Your task to perform on an android device: set default search engine in the chrome app Image 0: 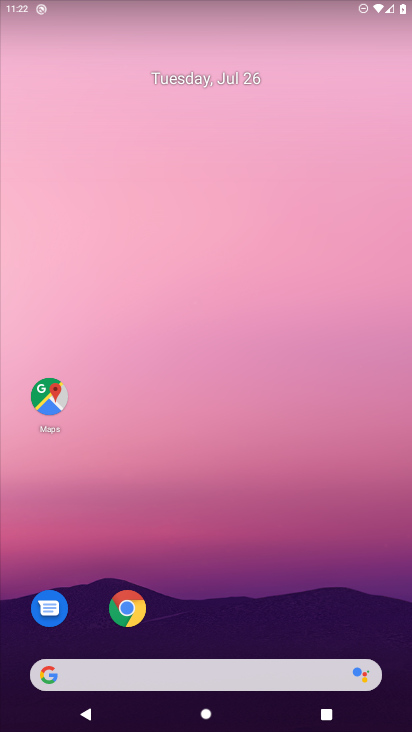
Step 0: click (216, 319)
Your task to perform on an android device: set default search engine in the chrome app Image 1: 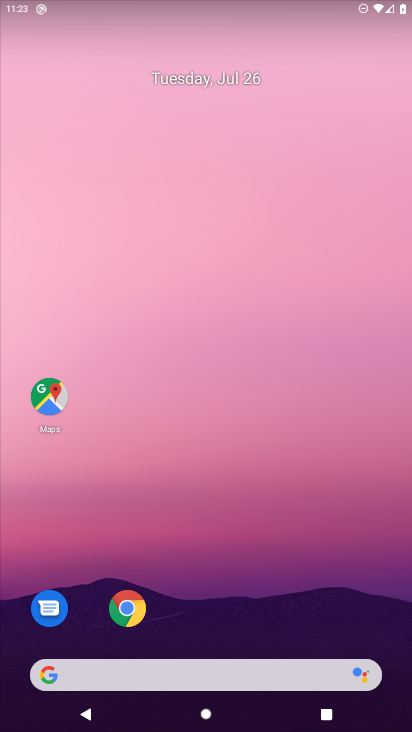
Step 1: drag from (192, 563) to (151, 172)
Your task to perform on an android device: set default search engine in the chrome app Image 2: 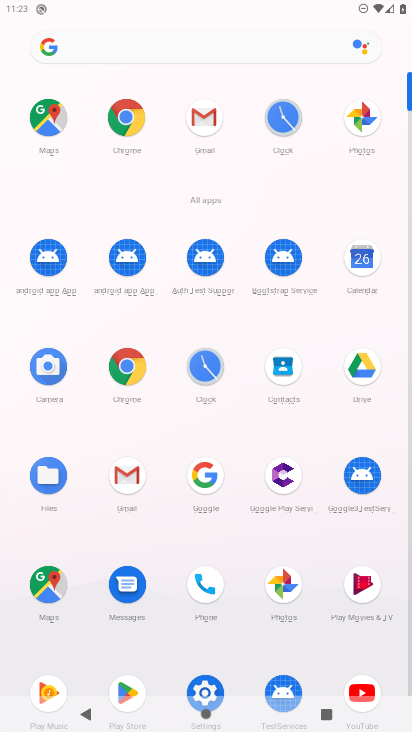
Step 2: click (121, 375)
Your task to perform on an android device: set default search engine in the chrome app Image 3: 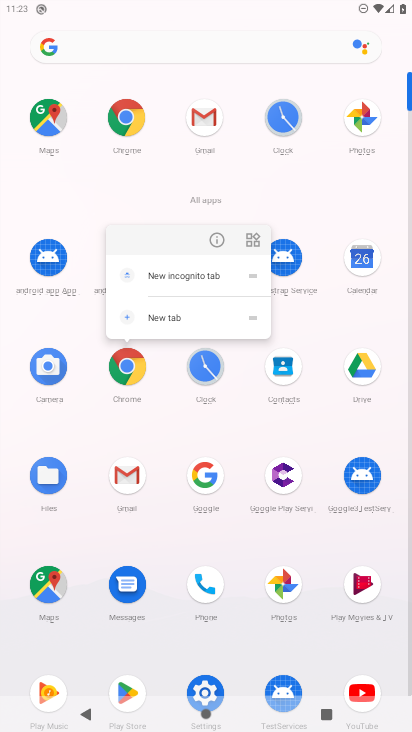
Step 3: click (219, 250)
Your task to perform on an android device: set default search engine in the chrome app Image 4: 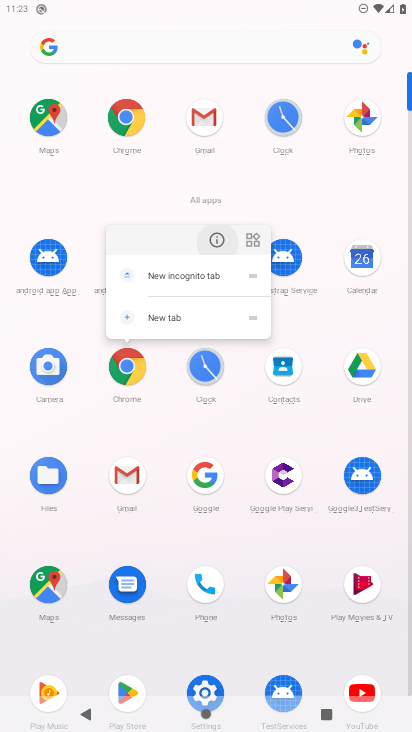
Step 4: click (211, 246)
Your task to perform on an android device: set default search engine in the chrome app Image 5: 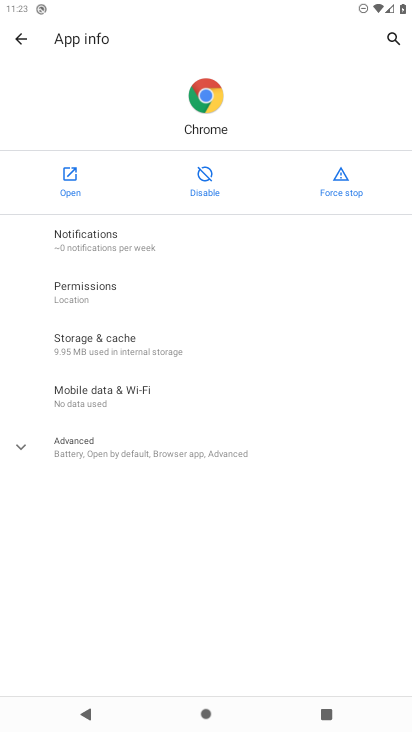
Step 5: drag from (130, 185) to (26, 23)
Your task to perform on an android device: set default search engine in the chrome app Image 6: 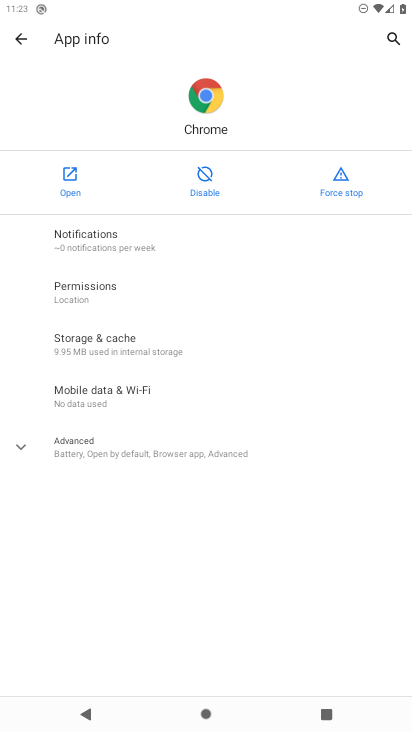
Step 6: click (56, 185)
Your task to perform on an android device: set default search engine in the chrome app Image 7: 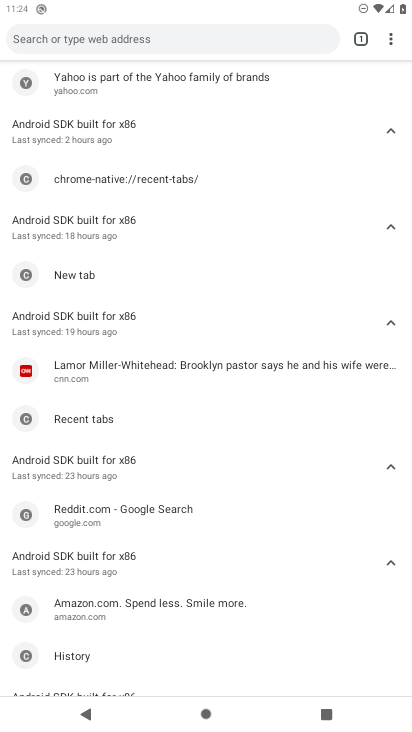
Step 7: drag from (233, 460) to (254, 197)
Your task to perform on an android device: set default search engine in the chrome app Image 8: 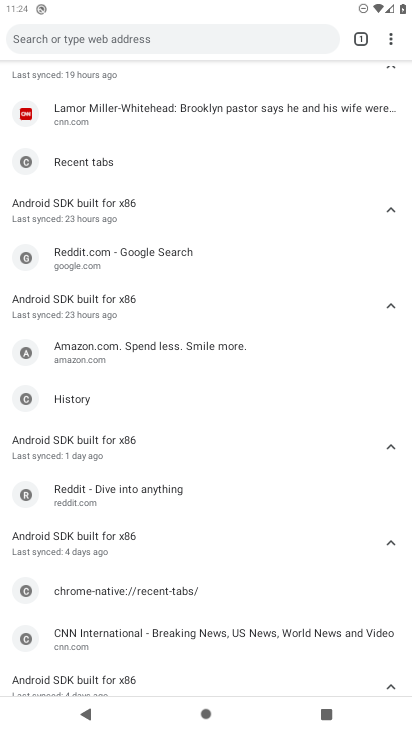
Step 8: drag from (72, 138) to (166, 503)
Your task to perform on an android device: set default search engine in the chrome app Image 9: 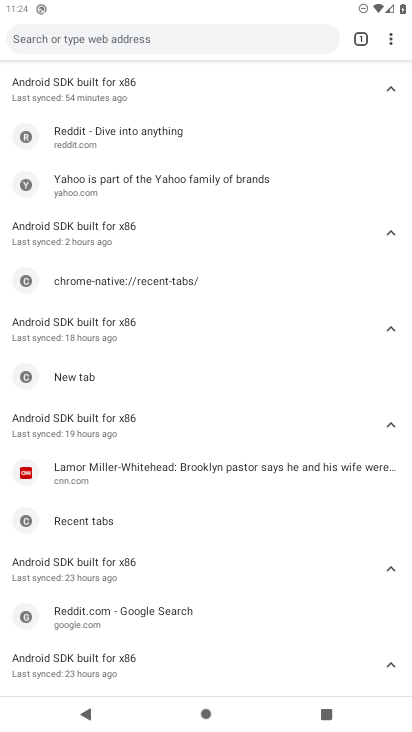
Step 9: press home button
Your task to perform on an android device: set default search engine in the chrome app Image 10: 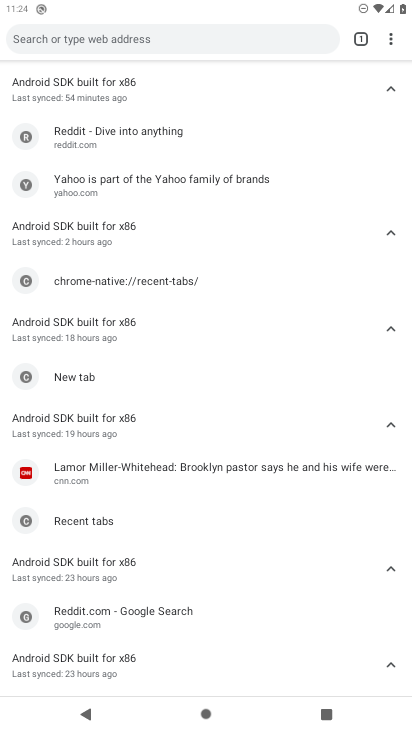
Step 10: press home button
Your task to perform on an android device: set default search engine in the chrome app Image 11: 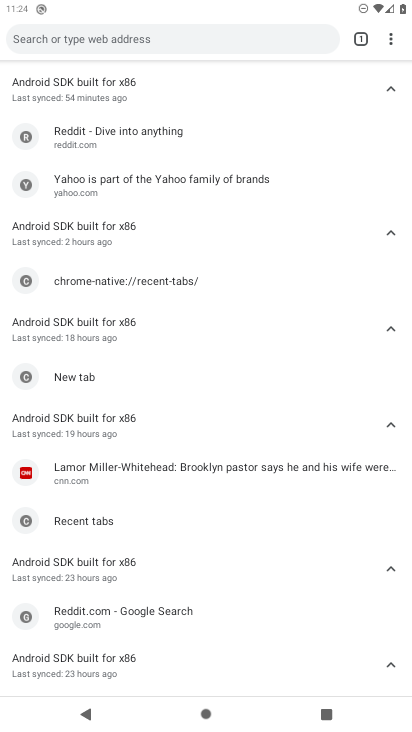
Step 11: drag from (69, 360) to (166, 0)
Your task to perform on an android device: set default search engine in the chrome app Image 12: 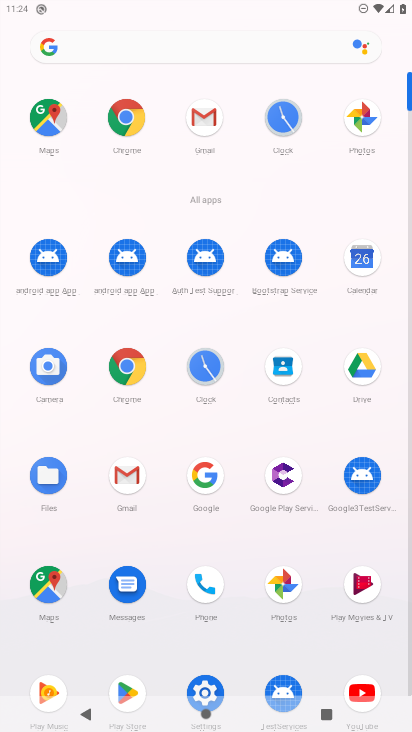
Step 12: click (126, 379)
Your task to perform on an android device: set default search engine in the chrome app Image 13: 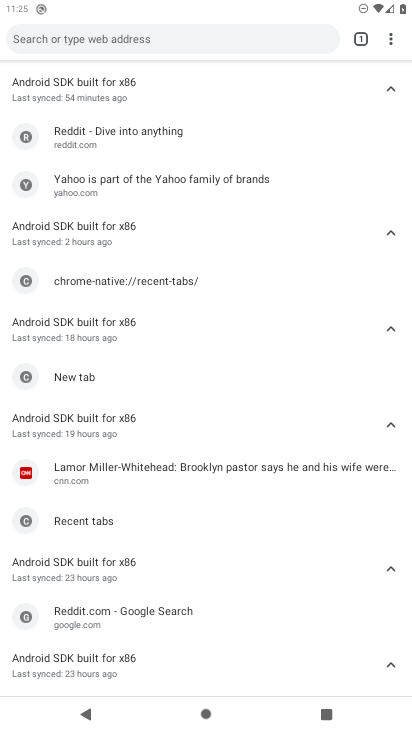
Step 13: drag from (386, 35) to (260, 332)
Your task to perform on an android device: set default search engine in the chrome app Image 14: 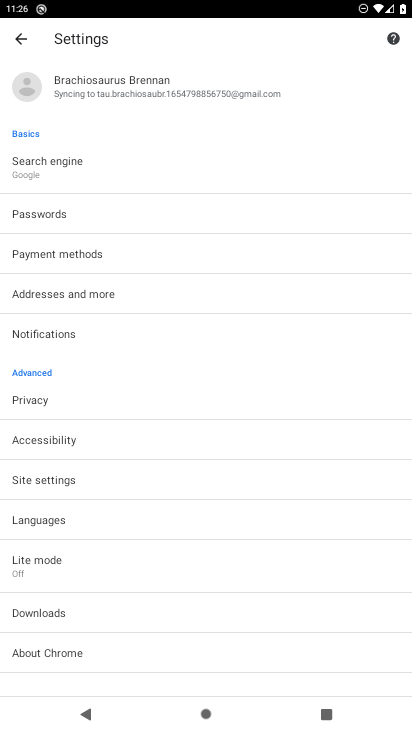
Step 14: click (93, 157)
Your task to perform on an android device: set default search engine in the chrome app Image 15: 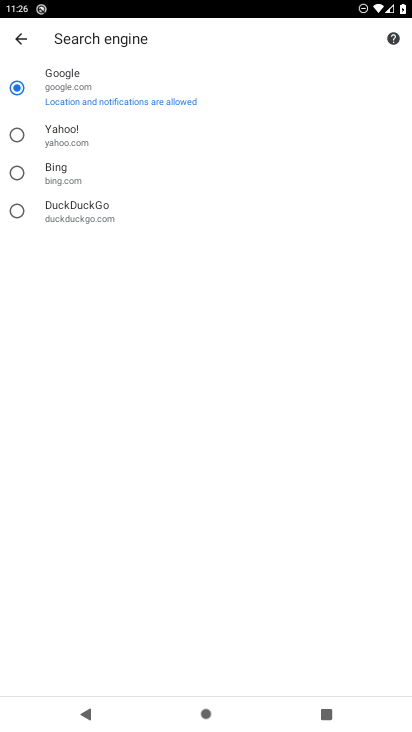
Step 15: task complete